Your task to perform on an android device: turn on the 24-hour format for clock Image 0: 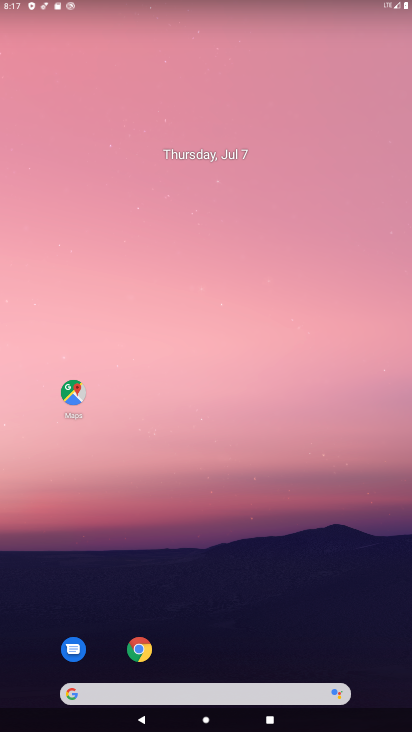
Step 0: drag from (243, 570) to (158, 168)
Your task to perform on an android device: turn on the 24-hour format for clock Image 1: 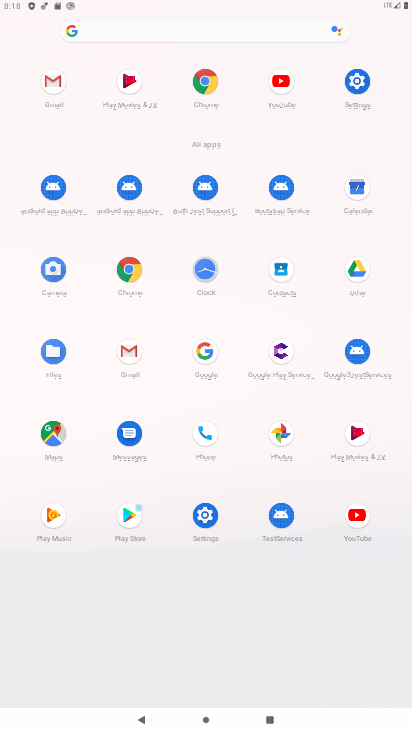
Step 1: click (205, 267)
Your task to perform on an android device: turn on the 24-hour format for clock Image 2: 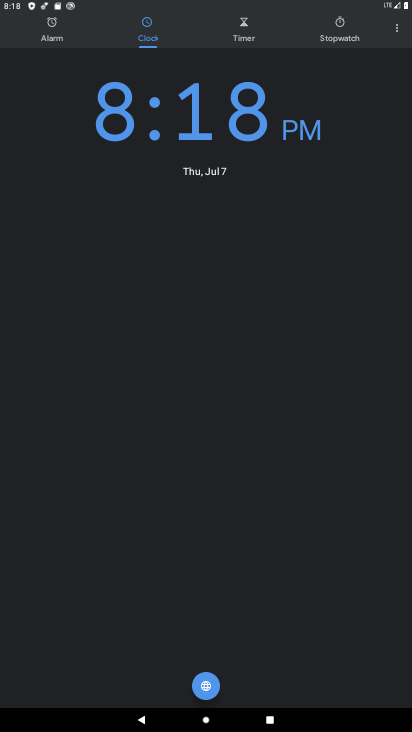
Step 2: click (398, 26)
Your task to perform on an android device: turn on the 24-hour format for clock Image 3: 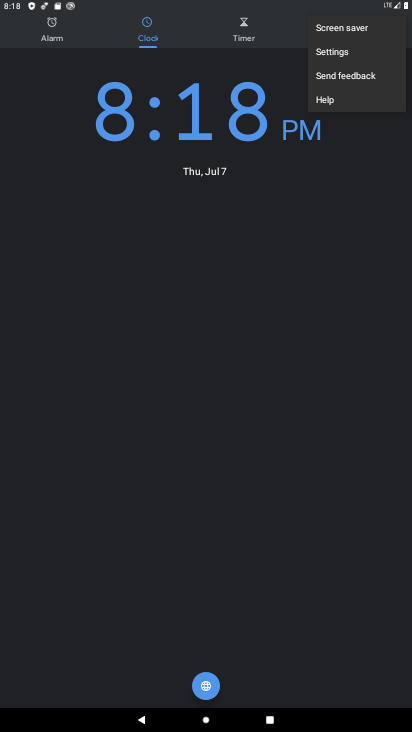
Step 3: click (332, 54)
Your task to perform on an android device: turn on the 24-hour format for clock Image 4: 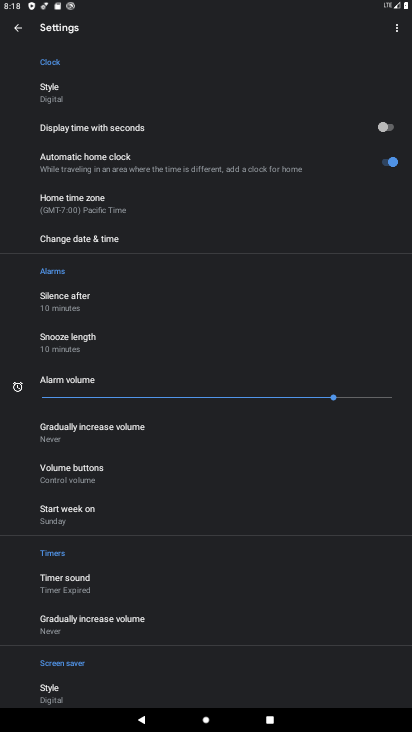
Step 4: click (113, 239)
Your task to perform on an android device: turn on the 24-hour format for clock Image 5: 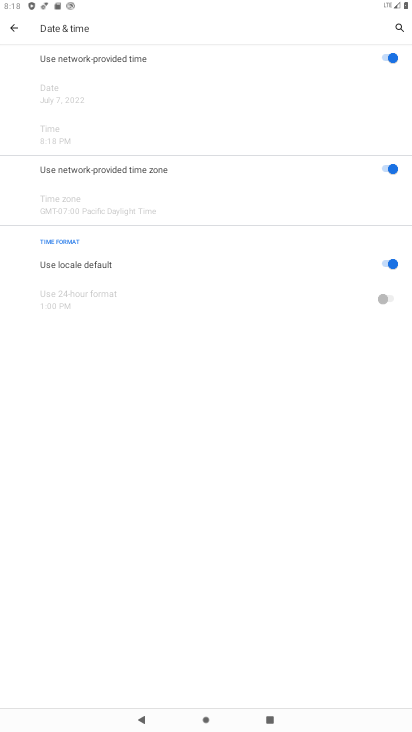
Step 5: click (394, 261)
Your task to perform on an android device: turn on the 24-hour format for clock Image 6: 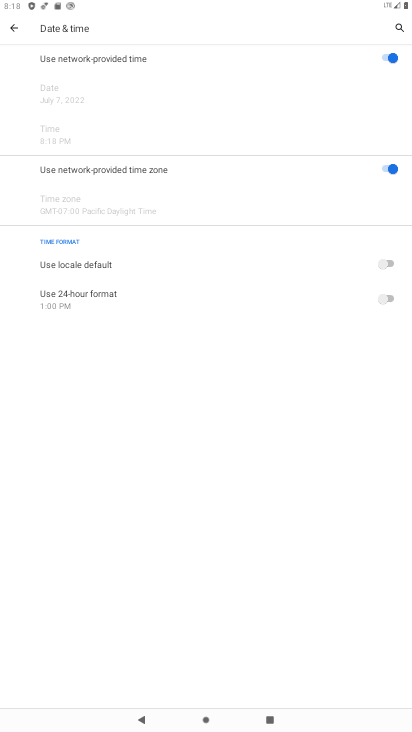
Step 6: click (389, 299)
Your task to perform on an android device: turn on the 24-hour format for clock Image 7: 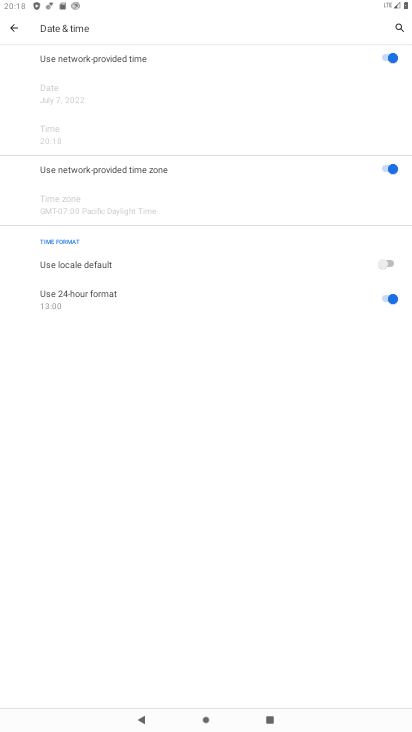
Step 7: task complete